Your task to perform on an android device: Open Google Chrome and open the bookmarks view Image 0: 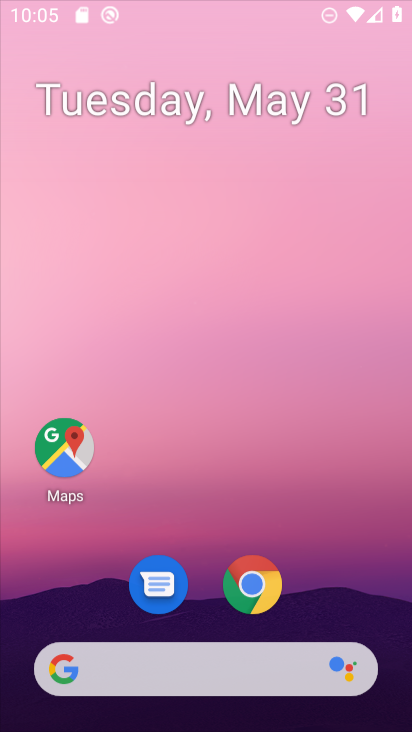
Step 0: press home button
Your task to perform on an android device: Open Google Chrome and open the bookmarks view Image 1: 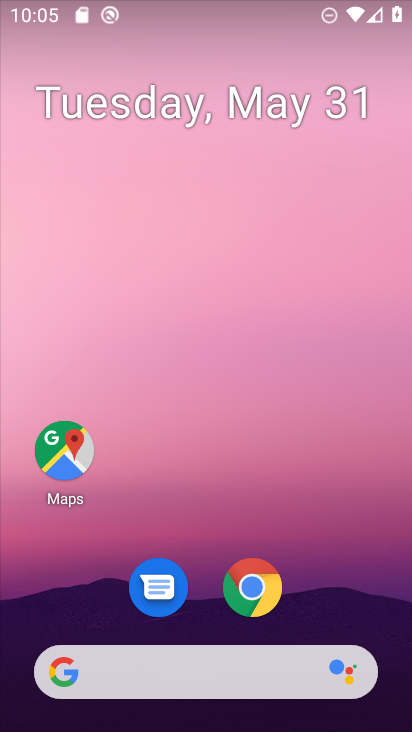
Step 1: click (249, 577)
Your task to perform on an android device: Open Google Chrome and open the bookmarks view Image 2: 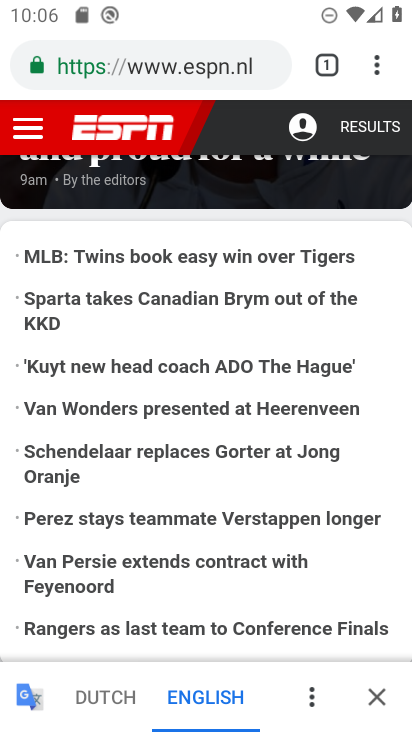
Step 2: click (372, 64)
Your task to perform on an android device: Open Google Chrome and open the bookmarks view Image 3: 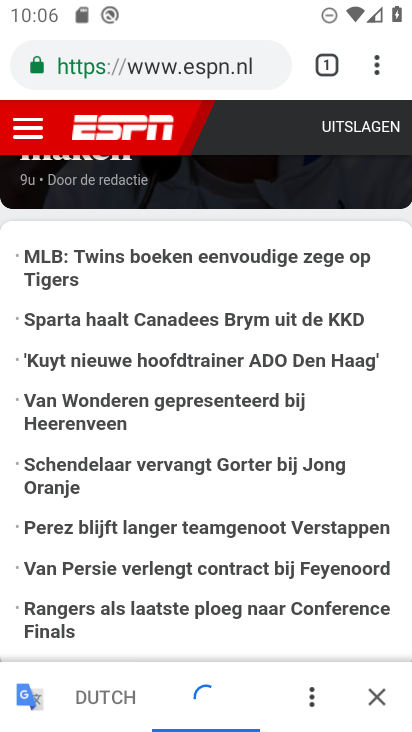
Step 3: click (376, 64)
Your task to perform on an android device: Open Google Chrome and open the bookmarks view Image 4: 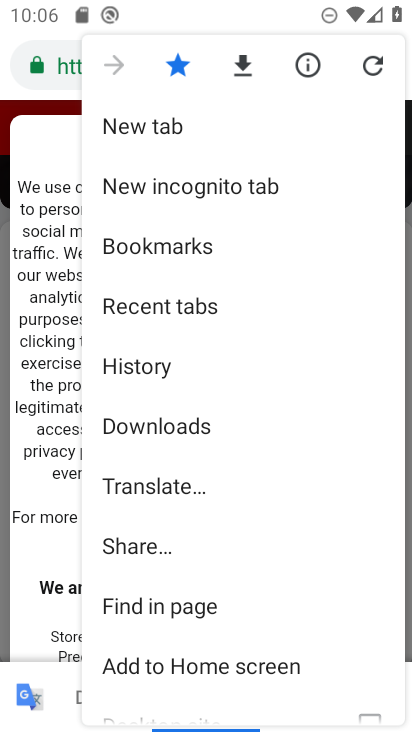
Step 4: click (229, 242)
Your task to perform on an android device: Open Google Chrome and open the bookmarks view Image 5: 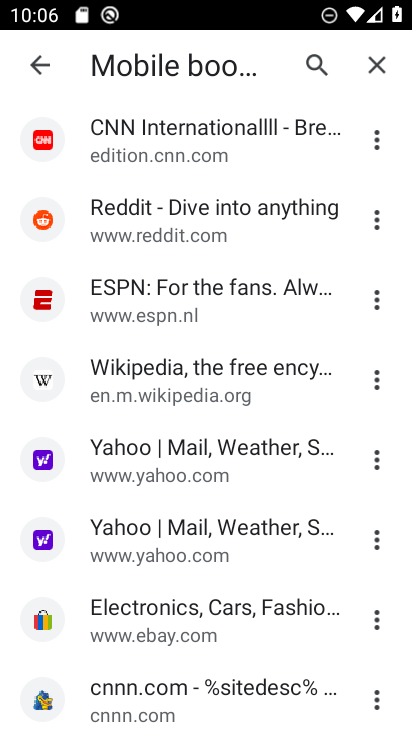
Step 5: click (267, 386)
Your task to perform on an android device: Open Google Chrome and open the bookmarks view Image 6: 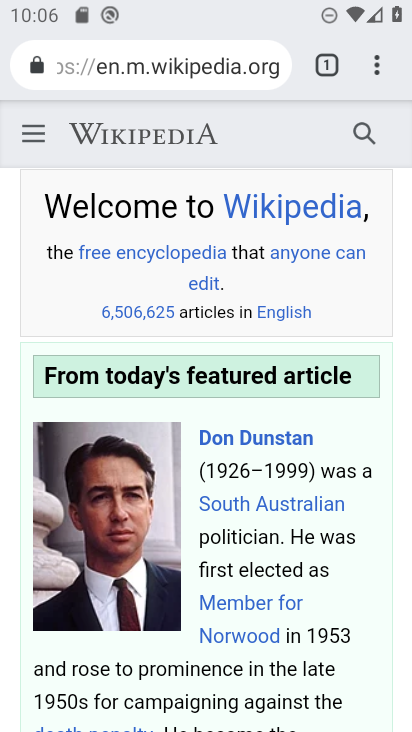
Step 6: task complete